Your task to perform on an android device: star an email in the gmail app Image 0: 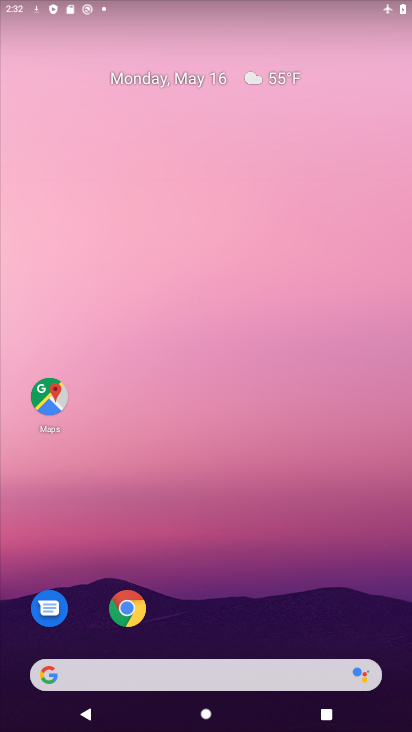
Step 0: drag from (235, 622) to (180, 133)
Your task to perform on an android device: star an email in the gmail app Image 1: 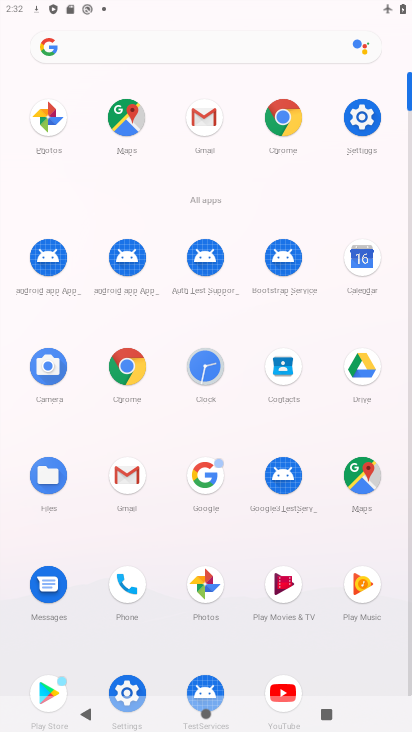
Step 1: click (134, 494)
Your task to perform on an android device: star an email in the gmail app Image 2: 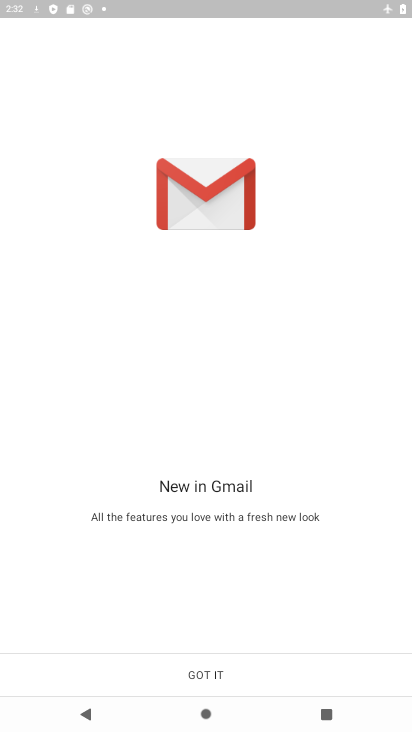
Step 2: click (205, 669)
Your task to perform on an android device: star an email in the gmail app Image 3: 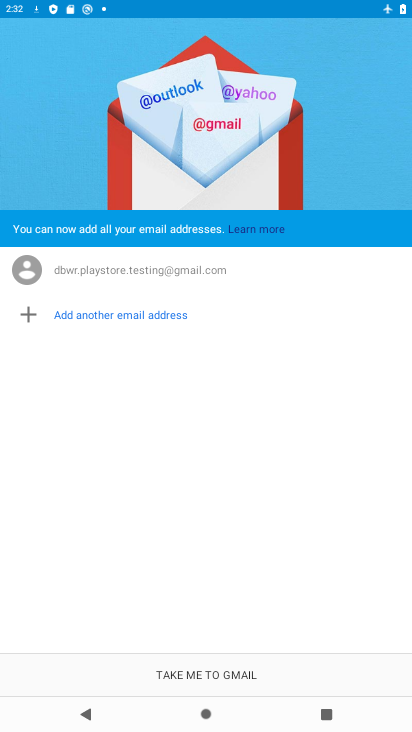
Step 3: click (192, 663)
Your task to perform on an android device: star an email in the gmail app Image 4: 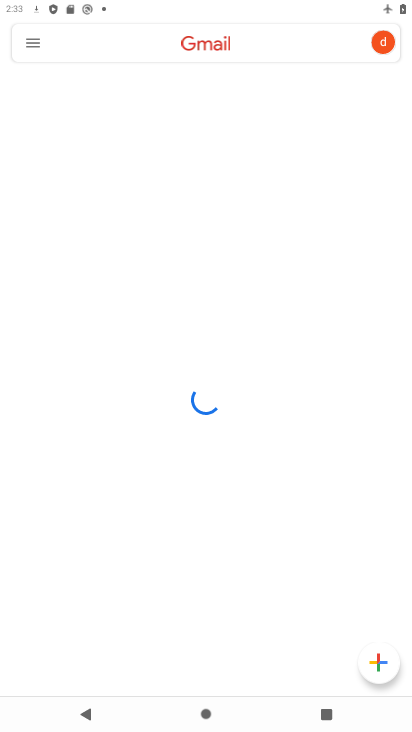
Step 4: click (35, 50)
Your task to perform on an android device: star an email in the gmail app Image 5: 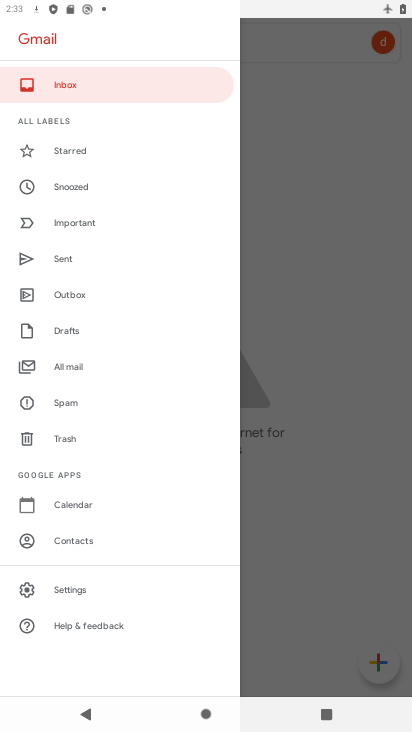
Step 5: click (105, 361)
Your task to perform on an android device: star an email in the gmail app Image 6: 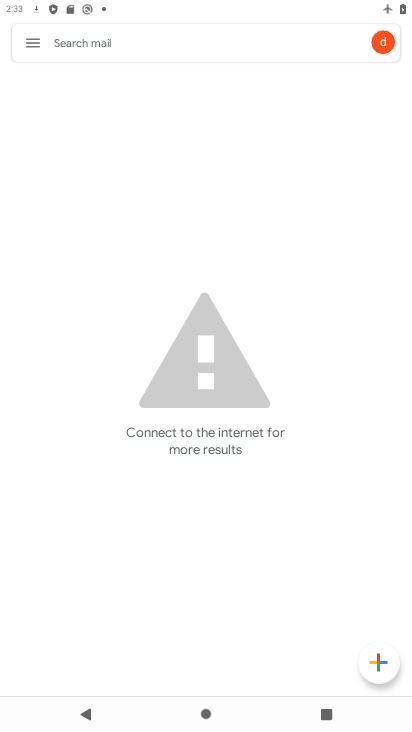
Step 6: task complete